Your task to perform on an android device: change the clock display to show seconds Image 0: 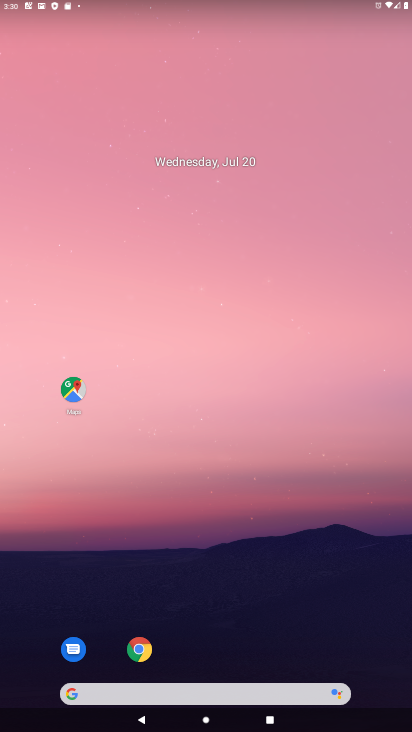
Step 0: drag from (219, 692) to (230, 238)
Your task to perform on an android device: change the clock display to show seconds Image 1: 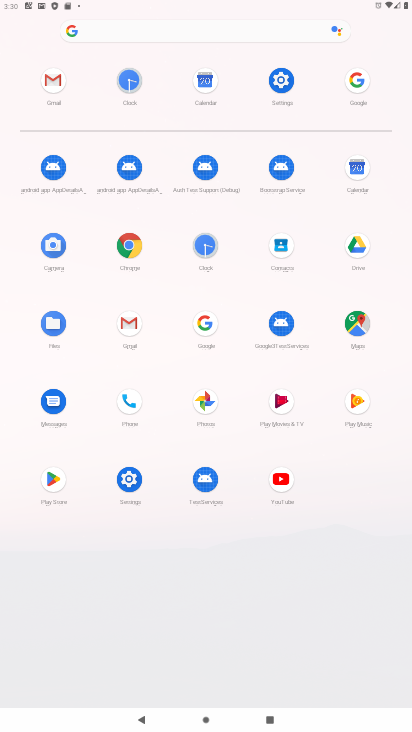
Step 1: click (129, 81)
Your task to perform on an android device: change the clock display to show seconds Image 2: 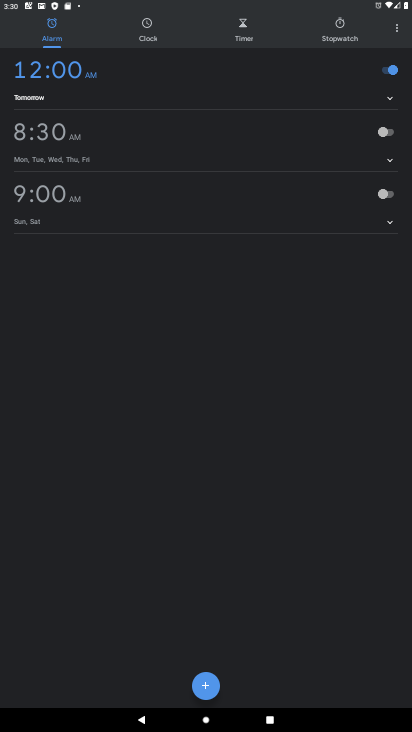
Step 2: click (397, 25)
Your task to perform on an android device: change the clock display to show seconds Image 3: 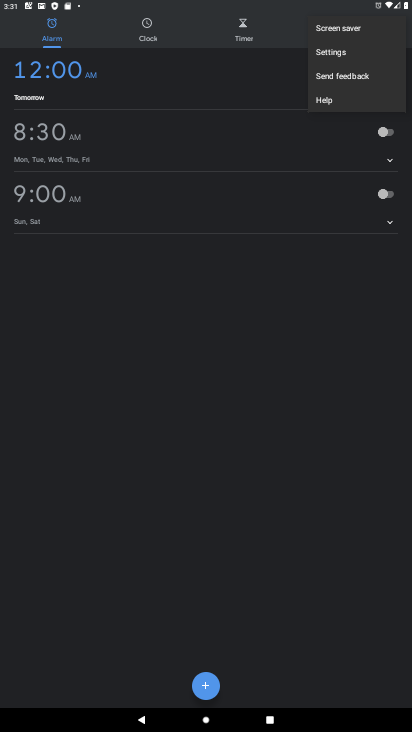
Step 3: click (342, 56)
Your task to perform on an android device: change the clock display to show seconds Image 4: 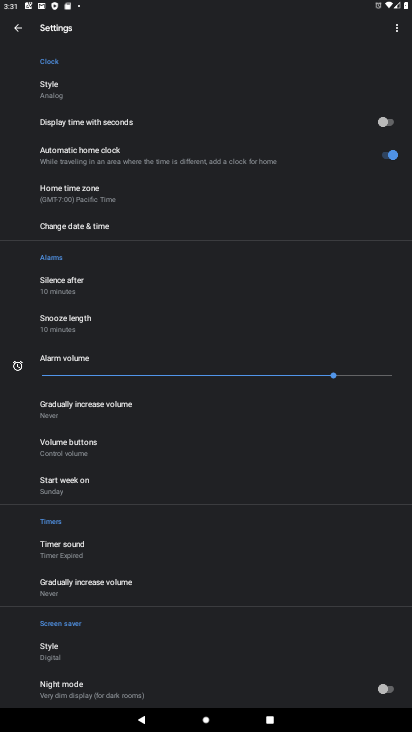
Step 4: click (383, 125)
Your task to perform on an android device: change the clock display to show seconds Image 5: 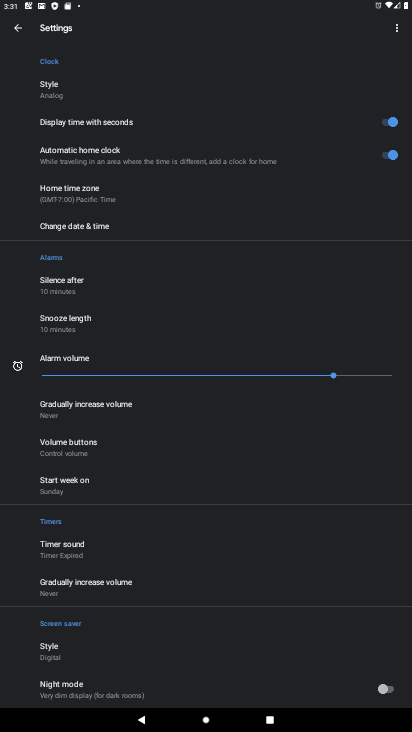
Step 5: task complete